Your task to perform on an android device: Show me popular games on the Play Store Image 0: 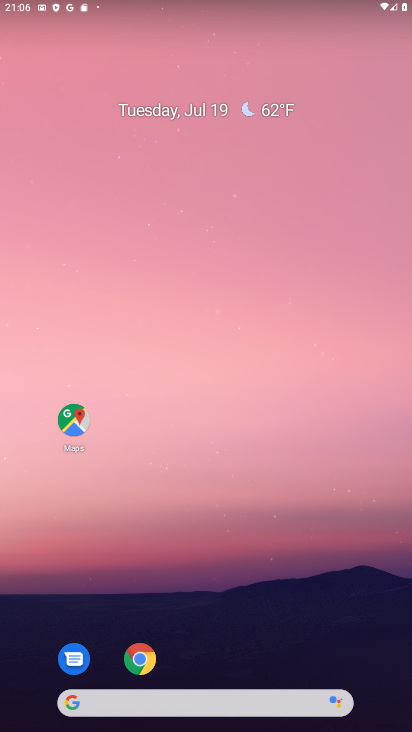
Step 0: press home button
Your task to perform on an android device: Show me popular games on the Play Store Image 1: 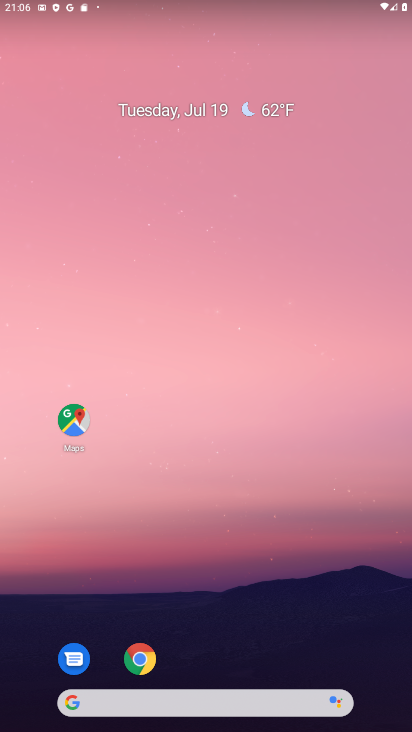
Step 1: drag from (194, 643) to (237, 173)
Your task to perform on an android device: Show me popular games on the Play Store Image 2: 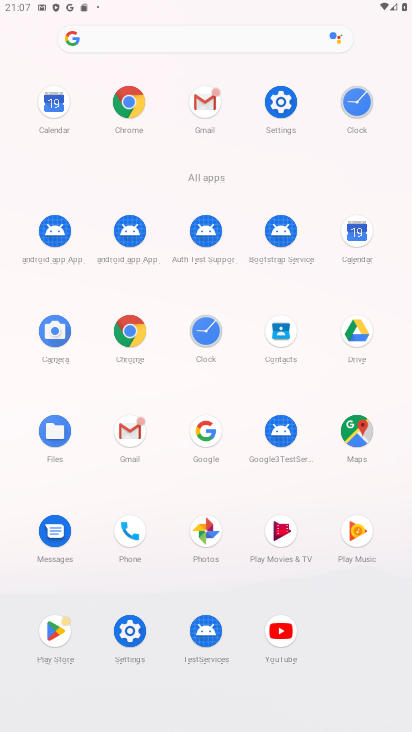
Step 2: click (135, 636)
Your task to perform on an android device: Show me popular games on the Play Store Image 3: 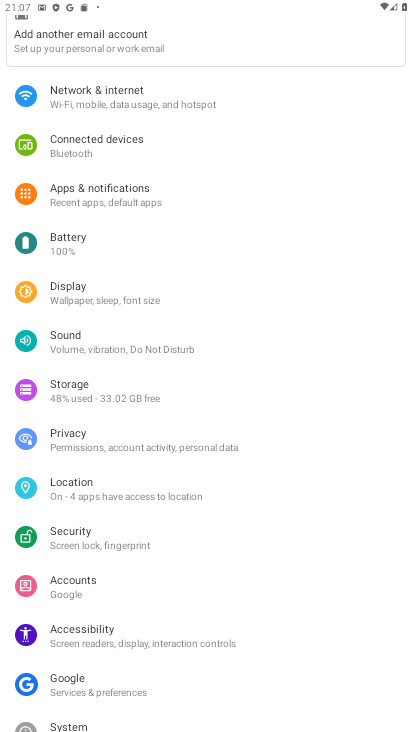
Step 3: press home button
Your task to perform on an android device: Show me popular games on the Play Store Image 4: 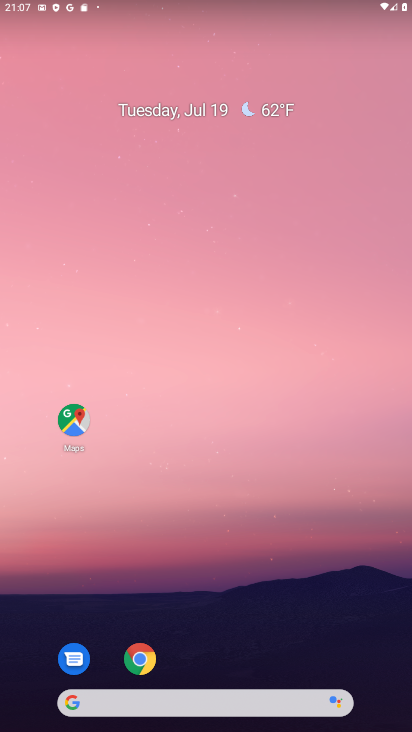
Step 4: drag from (230, 612) to (284, 422)
Your task to perform on an android device: Show me popular games on the Play Store Image 5: 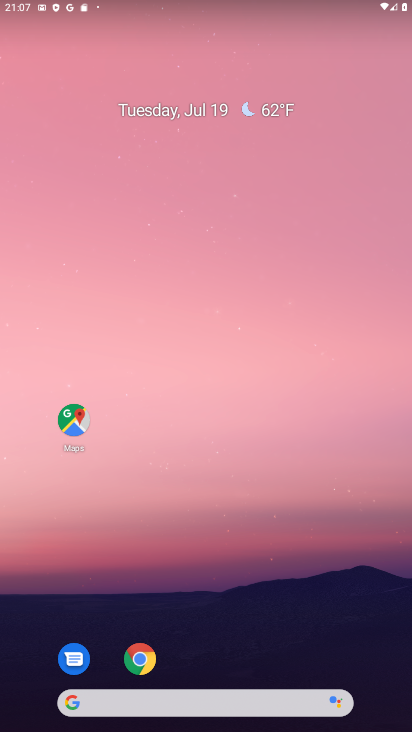
Step 5: drag from (345, 556) to (248, 7)
Your task to perform on an android device: Show me popular games on the Play Store Image 6: 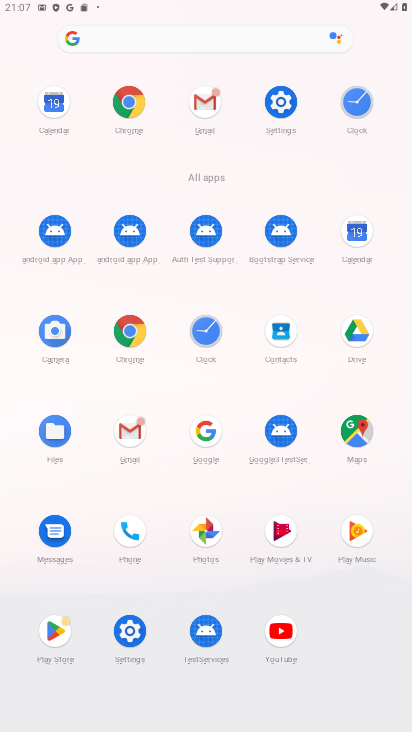
Step 6: click (59, 644)
Your task to perform on an android device: Show me popular games on the Play Store Image 7: 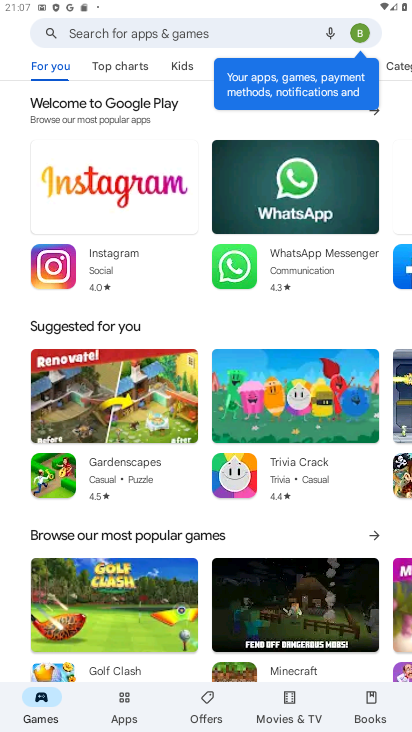
Step 7: click (147, 27)
Your task to perform on an android device: Show me popular games on the Play Store Image 8: 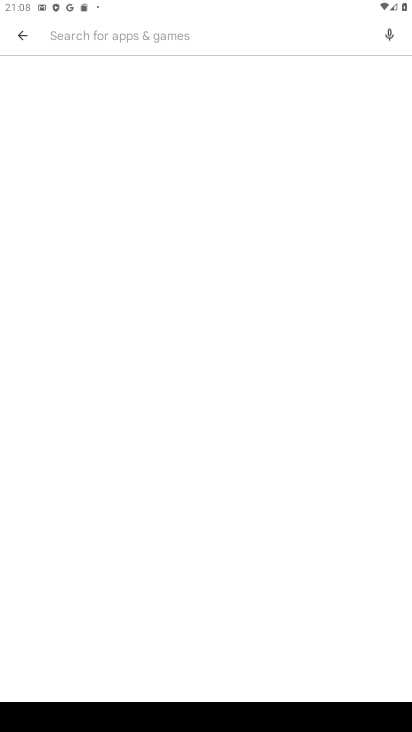
Step 8: click (147, 27)
Your task to perform on an android device: Show me popular games on the Play Store Image 9: 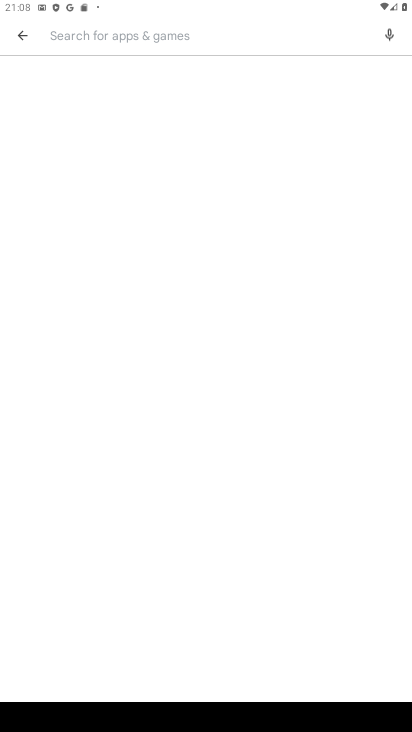
Step 9: type " popular games"
Your task to perform on an android device: Show me popular games on the Play Store Image 10: 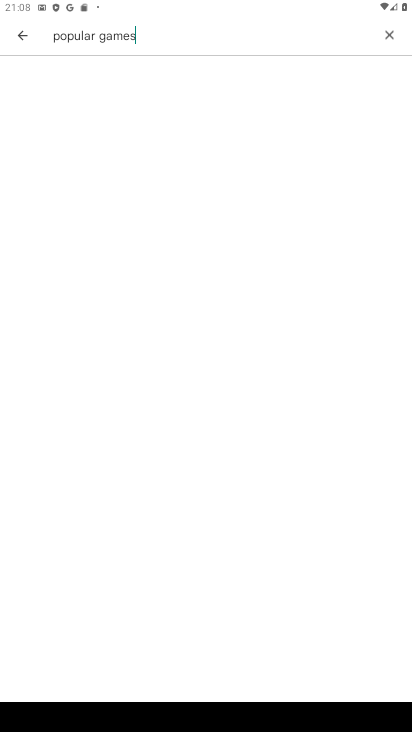
Step 10: type ""
Your task to perform on an android device: Show me popular games on the Play Store Image 11: 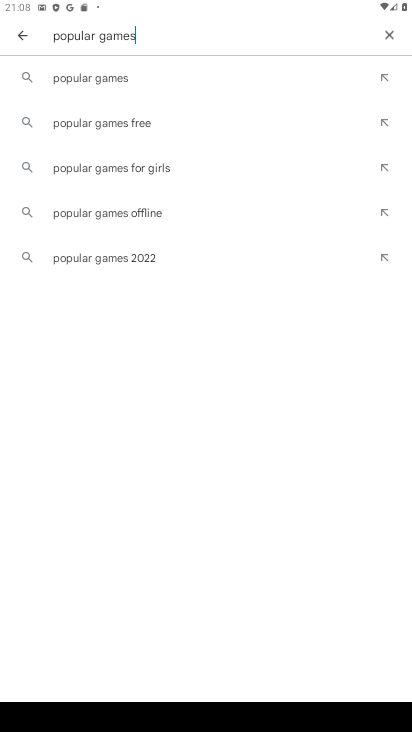
Step 11: click (47, 84)
Your task to perform on an android device: Show me popular games on the Play Store Image 12: 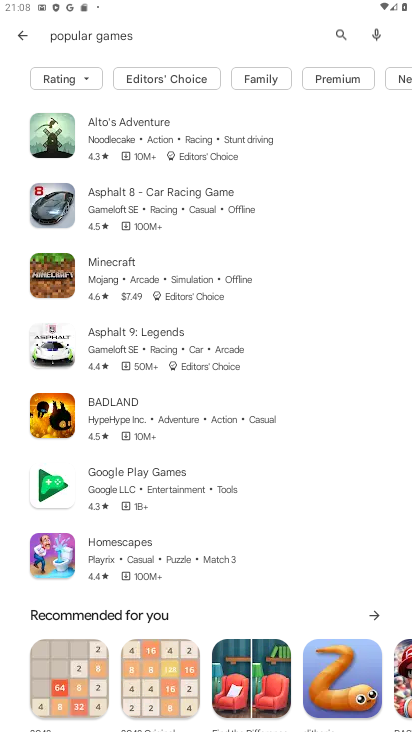
Step 12: task complete